Your task to perform on an android device: Open calendar and show me the fourth week of next month Image 0: 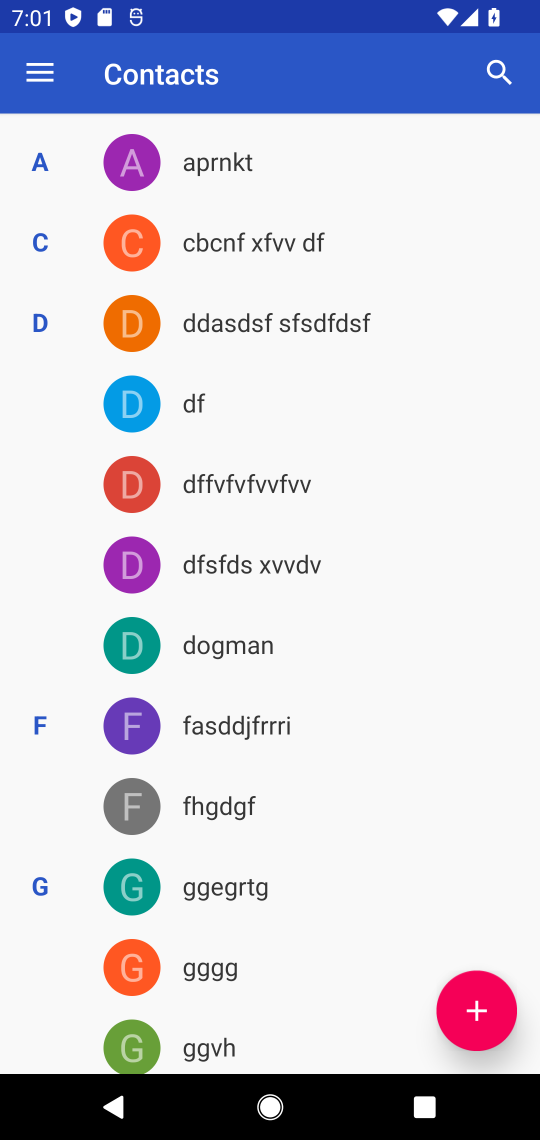
Step 0: press home button
Your task to perform on an android device: Open calendar and show me the fourth week of next month Image 1: 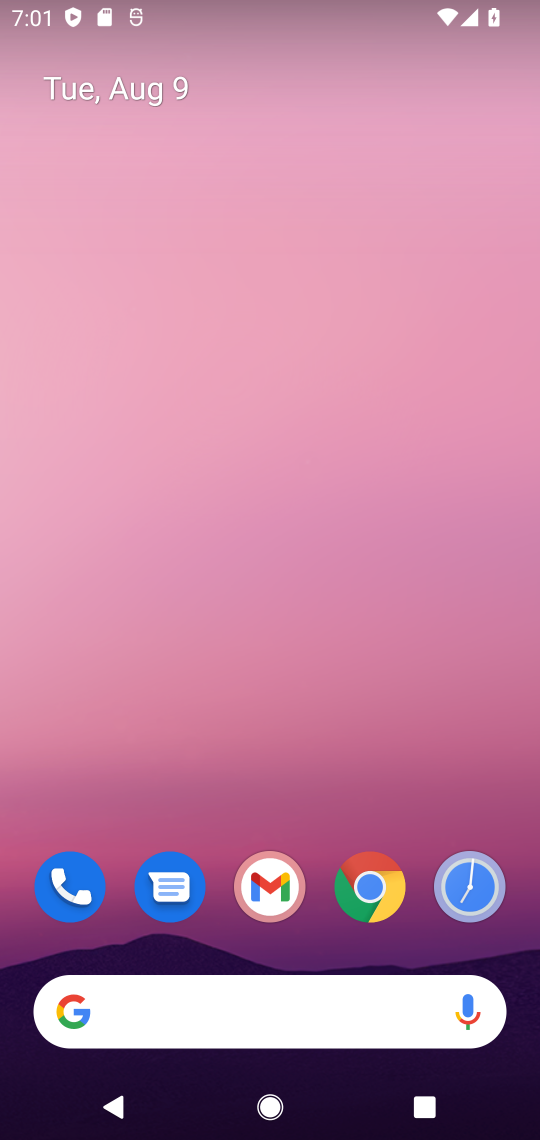
Step 1: drag from (337, 739) to (366, 0)
Your task to perform on an android device: Open calendar and show me the fourth week of next month Image 2: 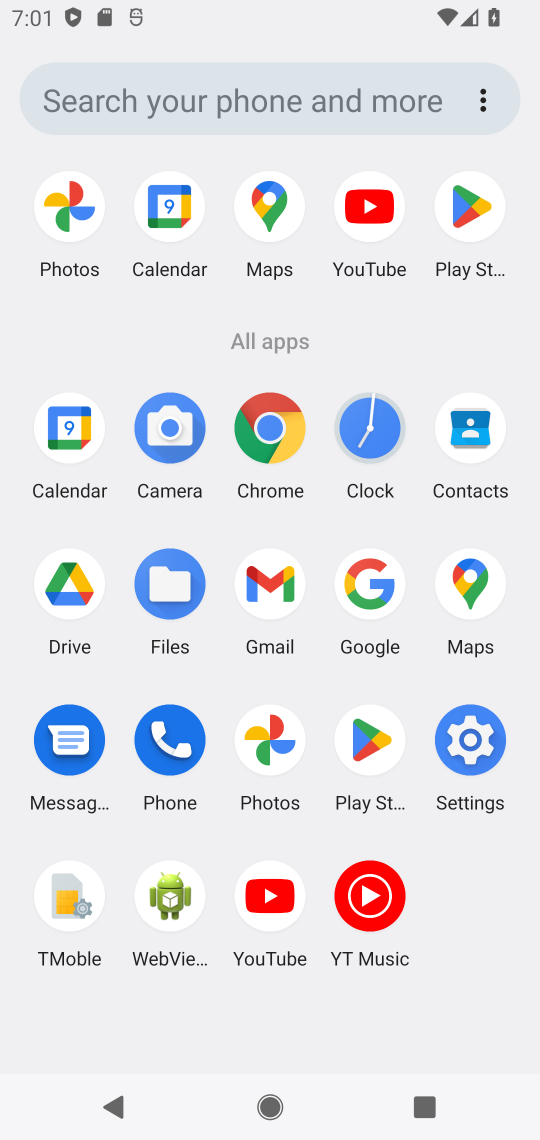
Step 2: click (176, 196)
Your task to perform on an android device: Open calendar and show me the fourth week of next month Image 3: 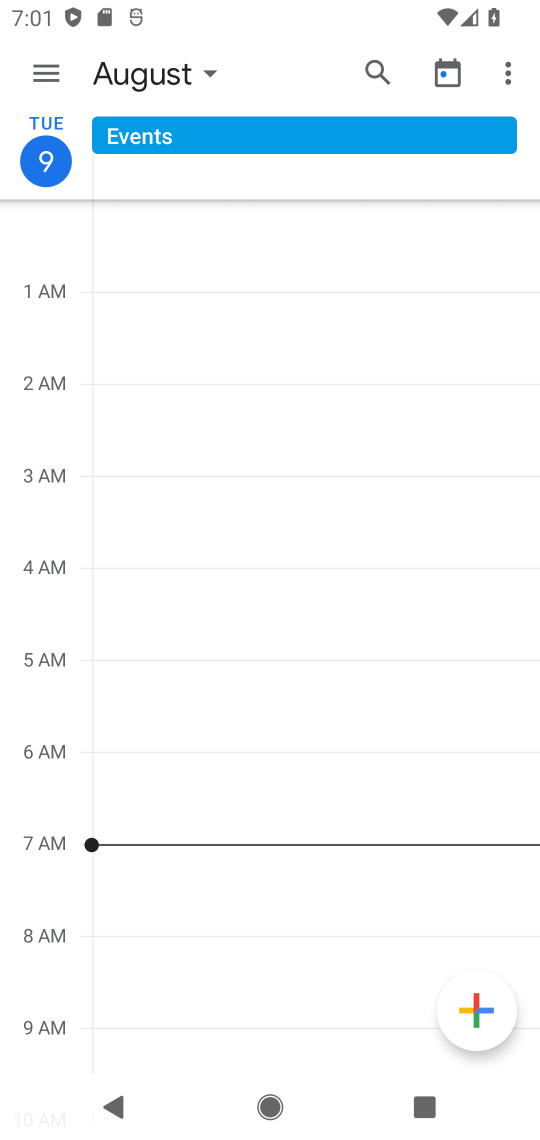
Step 3: click (43, 71)
Your task to perform on an android device: Open calendar and show me the fourth week of next month Image 4: 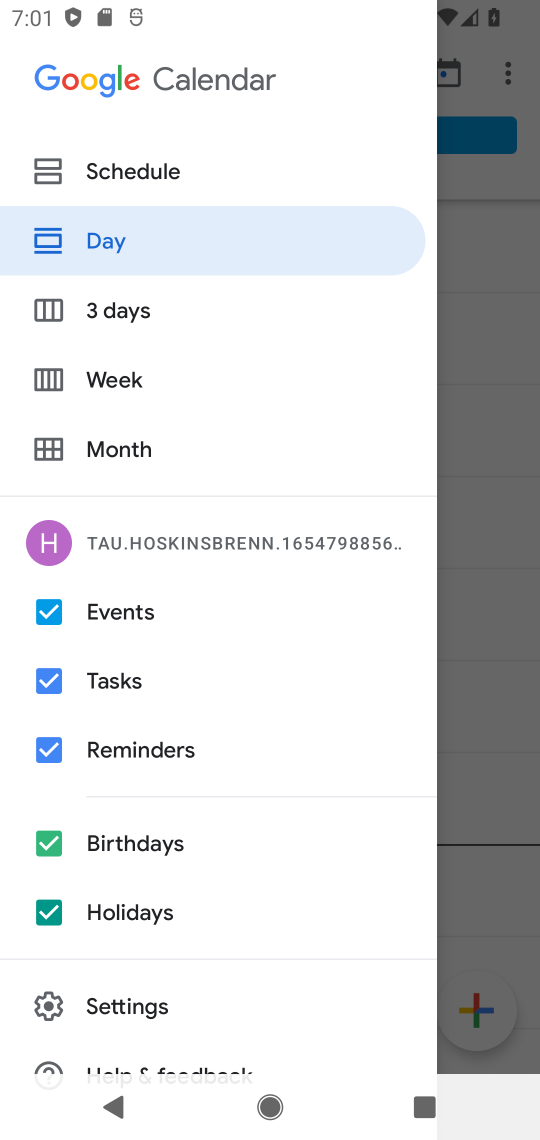
Step 4: click (114, 450)
Your task to perform on an android device: Open calendar and show me the fourth week of next month Image 5: 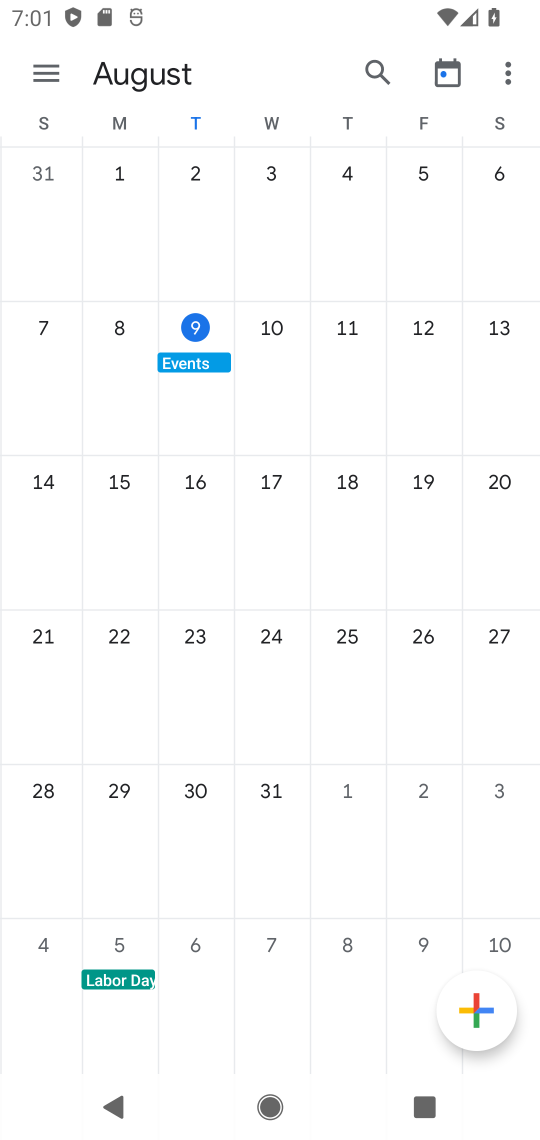
Step 5: drag from (489, 688) to (0, 832)
Your task to perform on an android device: Open calendar and show me the fourth week of next month Image 6: 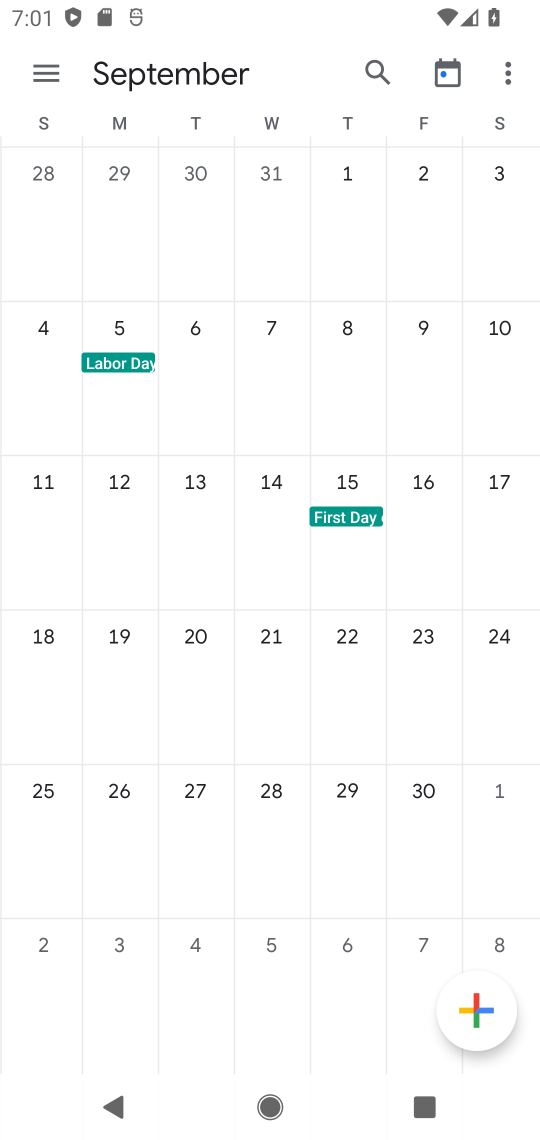
Step 6: click (46, 795)
Your task to perform on an android device: Open calendar and show me the fourth week of next month Image 7: 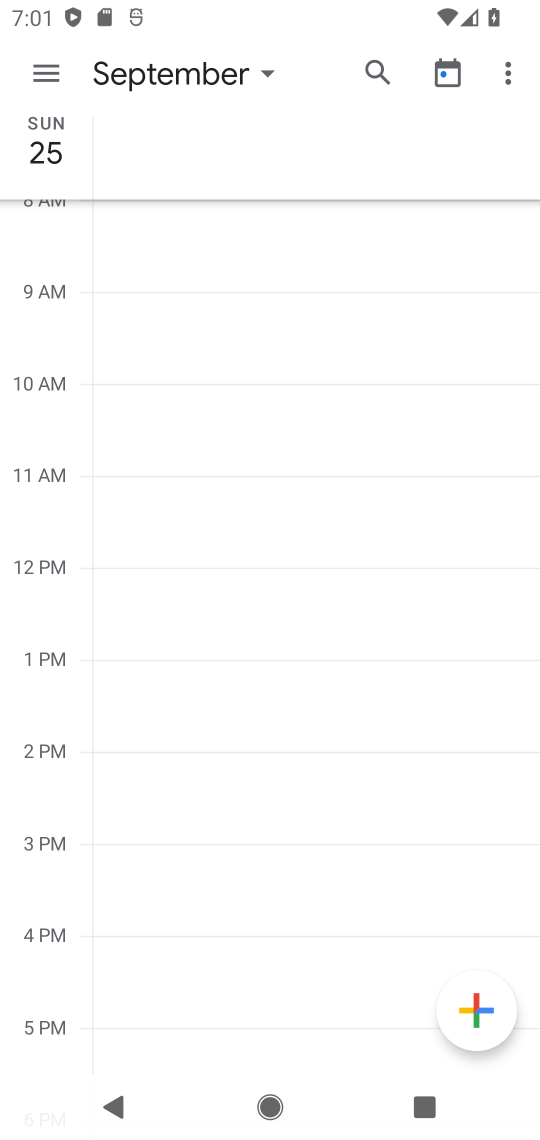
Step 7: task complete